Your task to perform on an android device: Open calendar and show me the first week of next month Image 0: 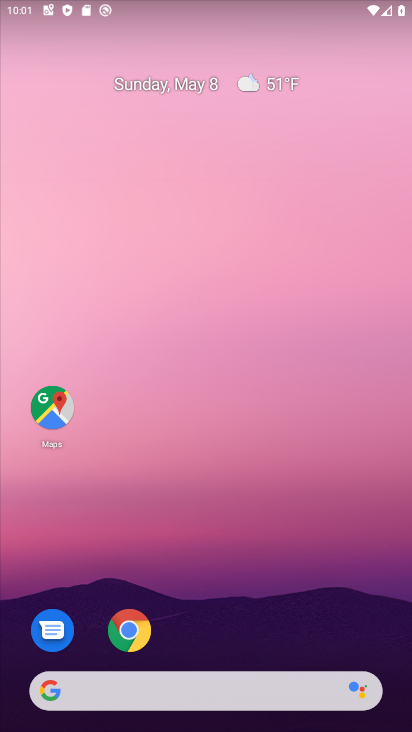
Step 0: drag from (389, 620) to (256, 87)
Your task to perform on an android device: Open calendar and show me the first week of next month Image 1: 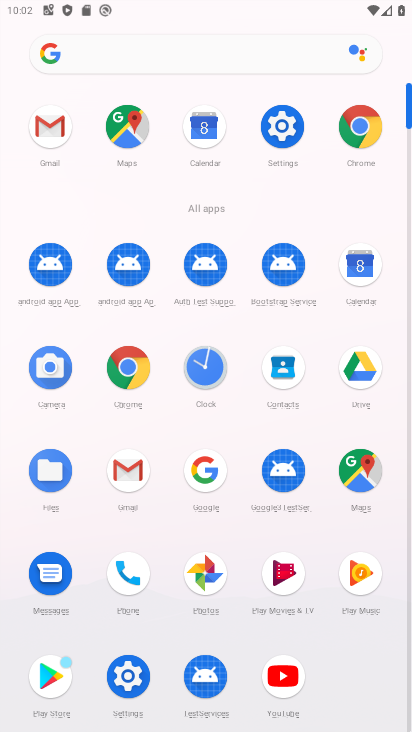
Step 1: click (348, 271)
Your task to perform on an android device: Open calendar and show me the first week of next month Image 2: 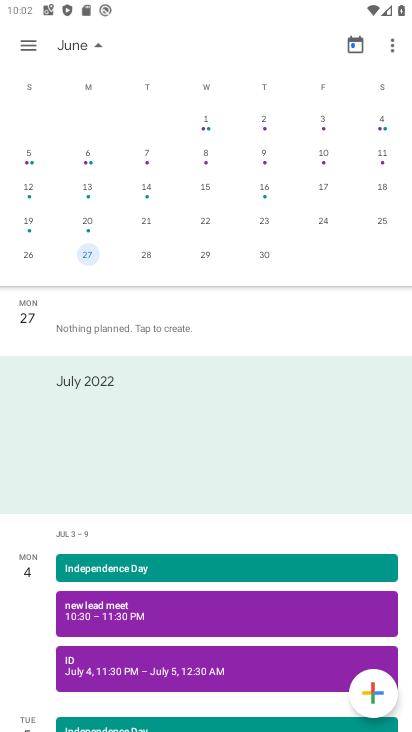
Step 2: drag from (346, 183) to (4, 141)
Your task to perform on an android device: Open calendar and show me the first week of next month Image 3: 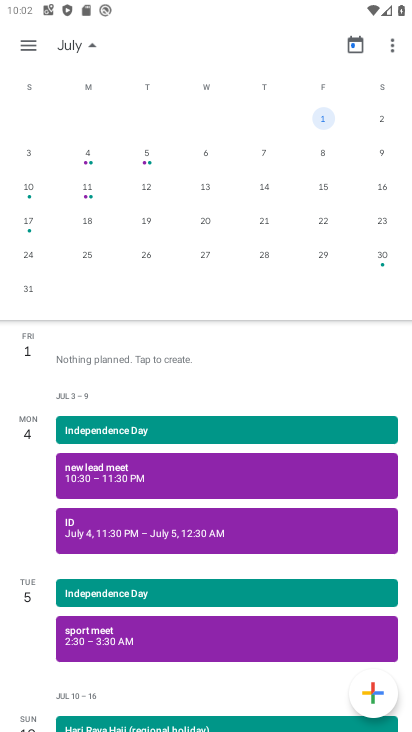
Step 3: click (146, 155)
Your task to perform on an android device: Open calendar and show me the first week of next month Image 4: 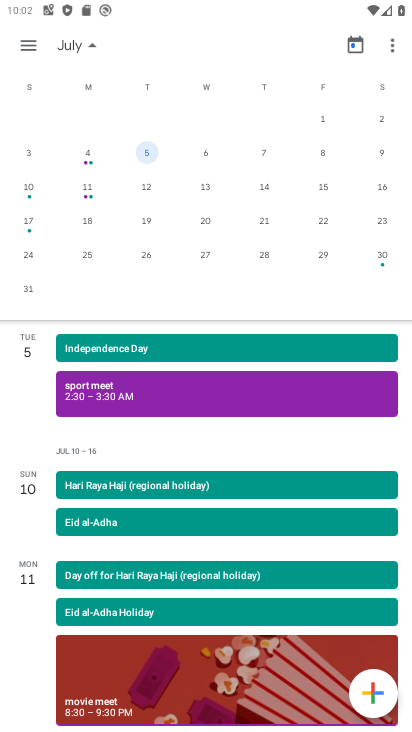
Step 4: task complete